Your task to perform on an android device: search for starred emails in the gmail app Image 0: 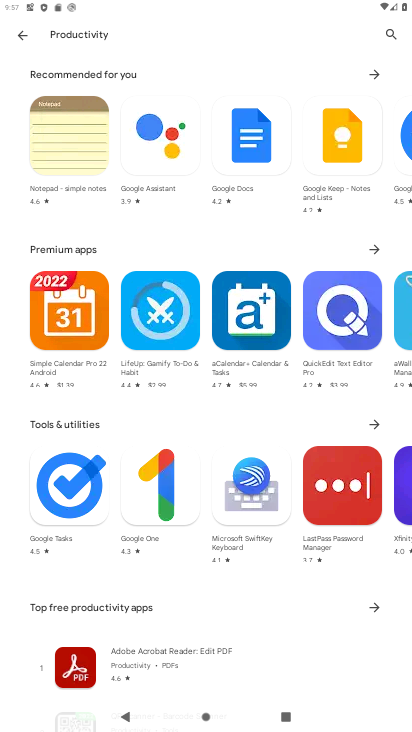
Step 0: press home button
Your task to perform on an android device: search for starred emails in the gmail app Image 1: 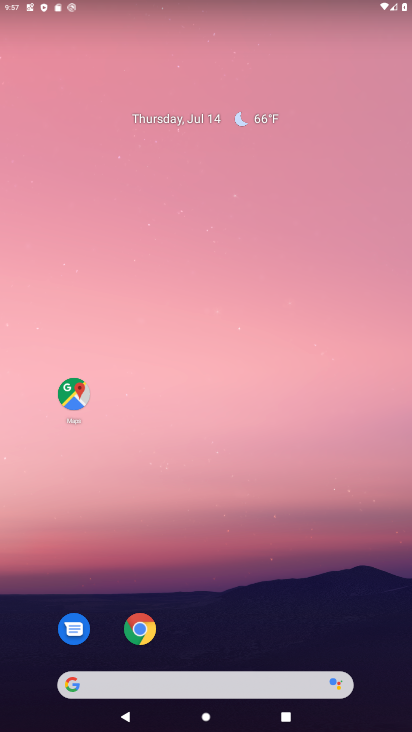
Step 1: drag from (271, 584) to (282, 143)
Your task to perform on an android device: search for starred emails in the gmail app Image 2: 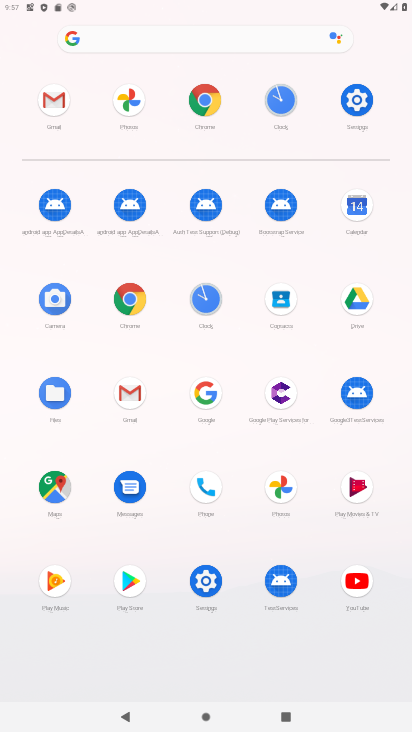
Step 2: click (122, 390)
Your task to perform on an android device: search for starred emails in the gmail app Image 3: 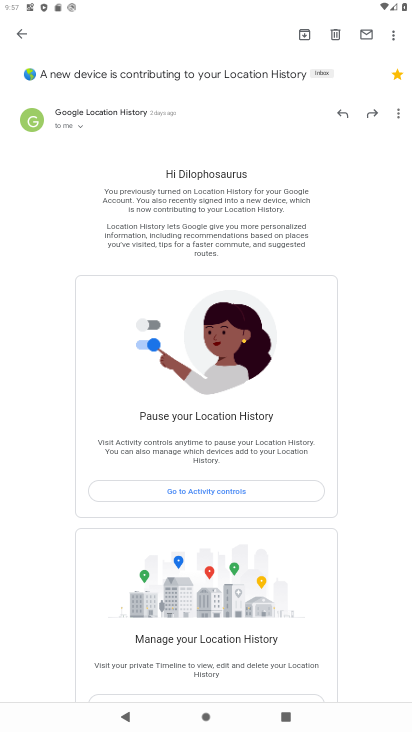
Step 3: click (24, 35)
Your task to perform on an android device: search for starred emails in the gmail app Image 4: 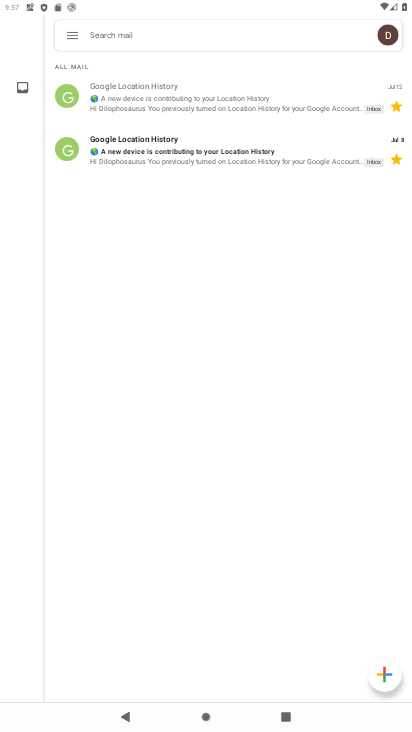
Step 4: click (79, 34)
Your task to perform on an android device: search for starred emails in the gmail app Image 5: 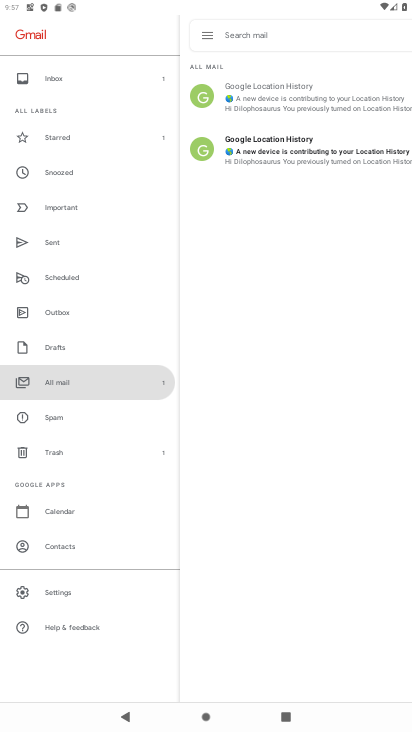
Step 5: click (78, 383)
Your task to perform on an android device: search for starred emails in the gmail app Image 6: 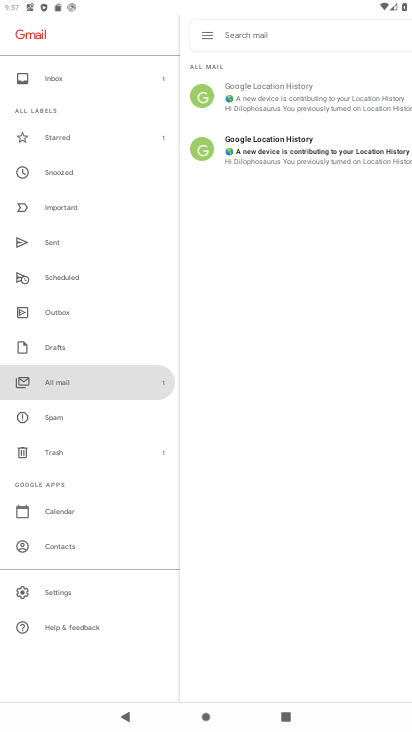
Step 6: click (85, 379)
Your task to perform on an android device: search for starred emails in the gmail app Image 7: 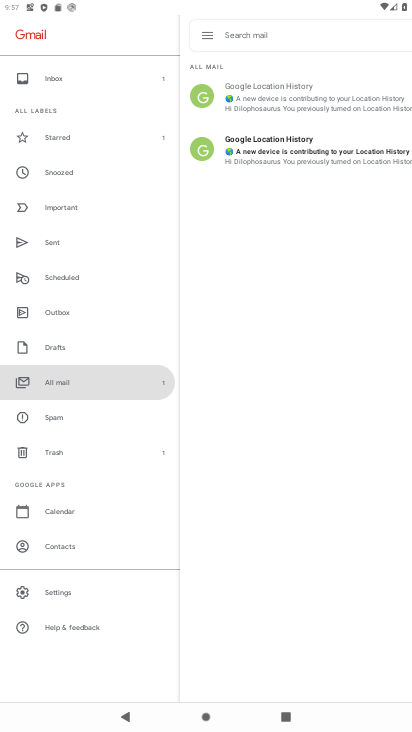
Step 7: click (61, 138)
Your task to perform on an android device: search for starred emails in the gmail app Image 8: 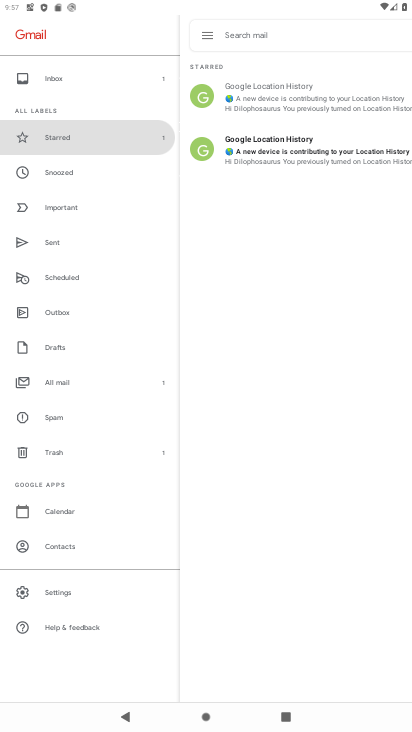
Step 8: task complete